Your task to perform on an android device: toggle show notifications on the lock screen Image 0: 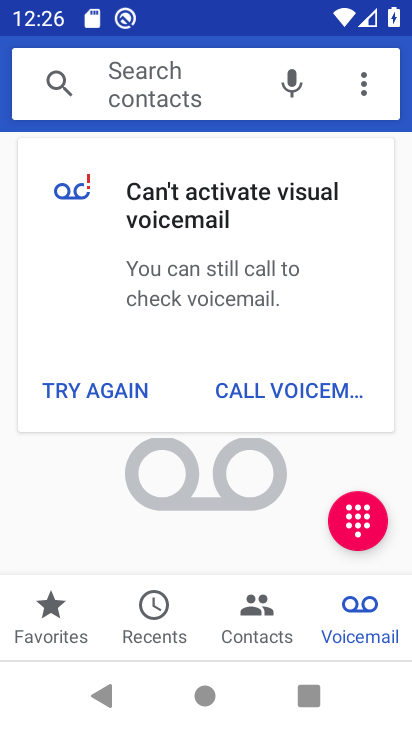
Step 0: drag from (246, 644) to (319, 290)
Your task to perform on an android device: toggle show notifications on the lock screen Image 1: 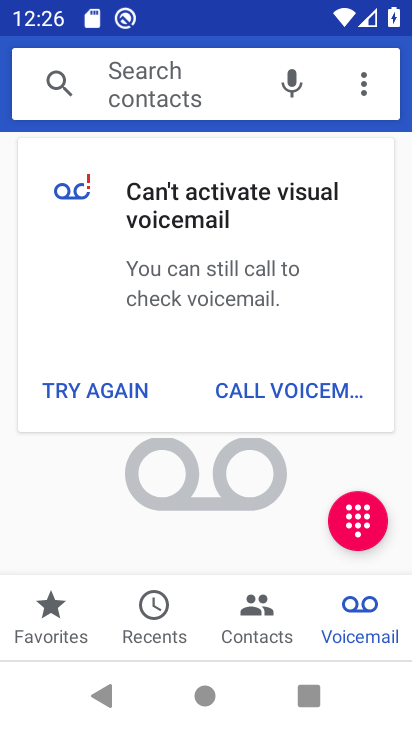
Step 1: press home button
Your task to perform on an android device: toggle show notifications on the lock screen Image 2: 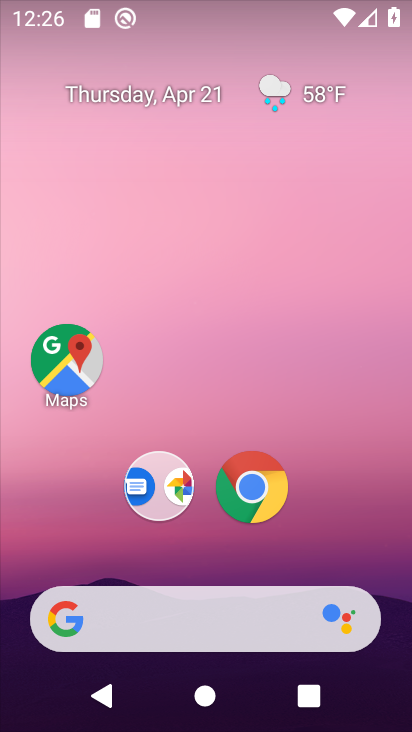
Step 2: drag from (247, 652) to (317, 126)
Your task to perform on an android device: toggle show notifications on the lock screen Image 3: 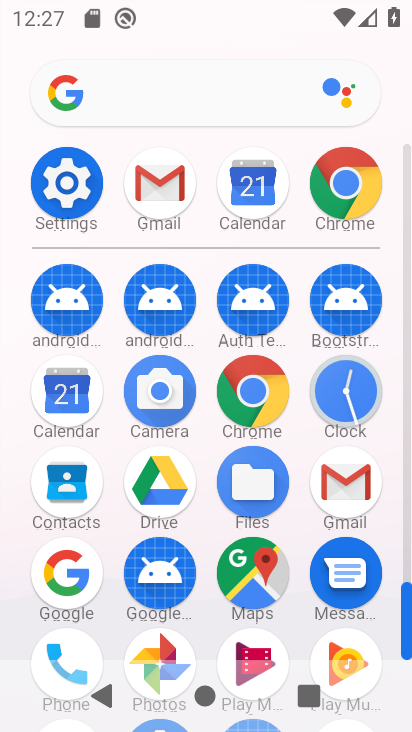
Step 3: click (65, 211)
Your task to perform on an android device: toggle show notifications on the lock screen Image 4: 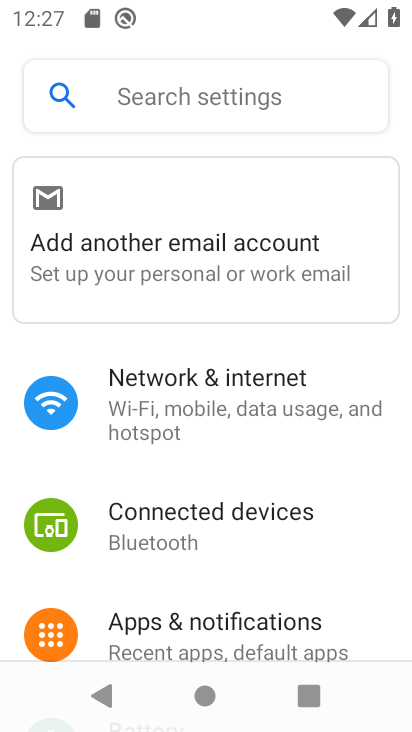
Step 4: click (208, 102)
Your task to perform on an android device: toggle show notifications on the lock screen Image 5: 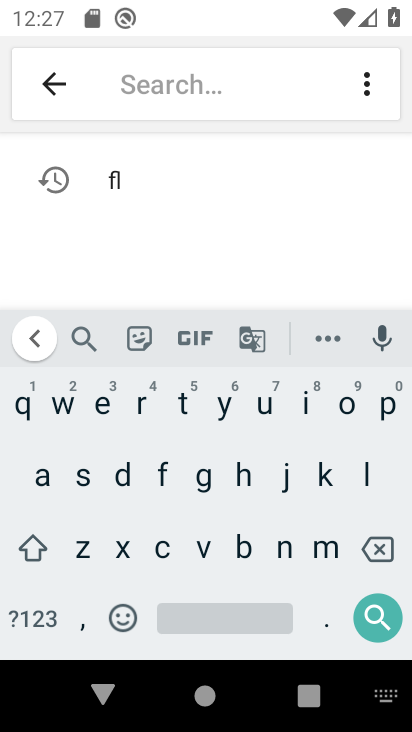
Step 5: click (280, 546)
Your task to perform on an android device: toggle show notifications on the lock screen Image 6: 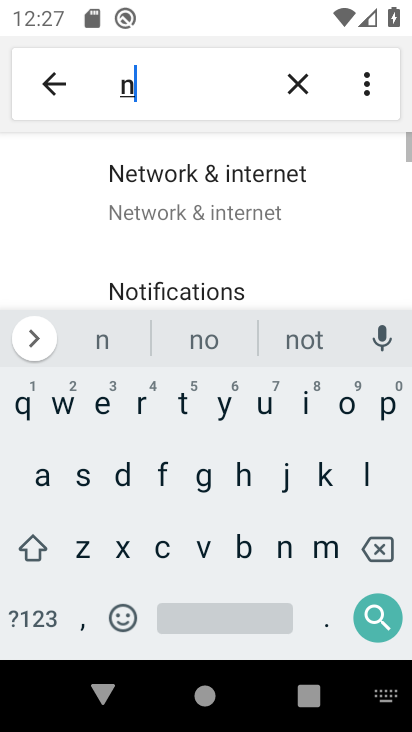
Step 6: click (343, 410)
Your task to perform on an android device: toggle show notifications on the lock screen Image 7: 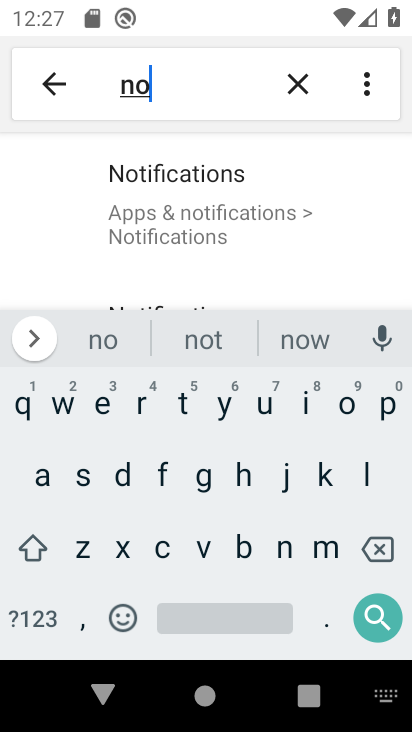
Step 7: click (185, 410)
Your task to perform on an android device: toggle show notifications on the lock screen Image 8: 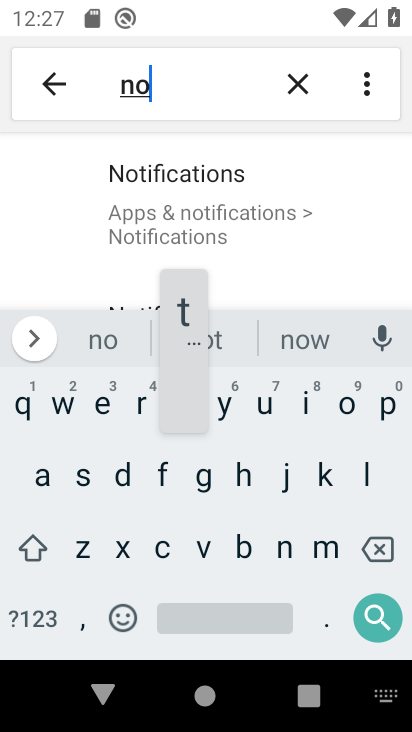
Step 8: click (185, 410)
Your task to perform on an android device: toggle show notifications on the lock screen Image 9: 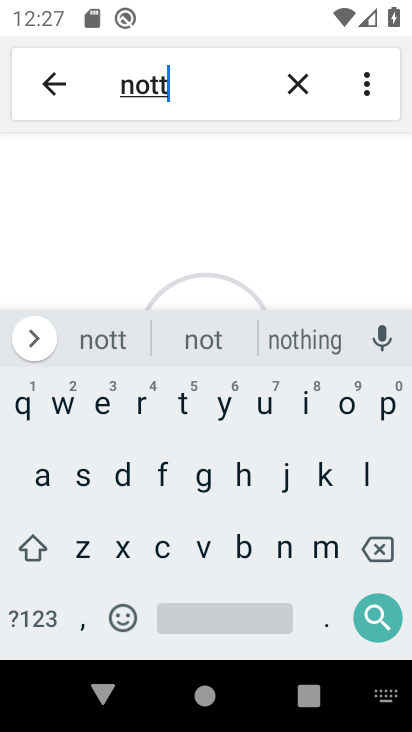
Step 9: click (377, 545)
Your task to perform on an android device: toggle show notifications on the lock screen Image 10: 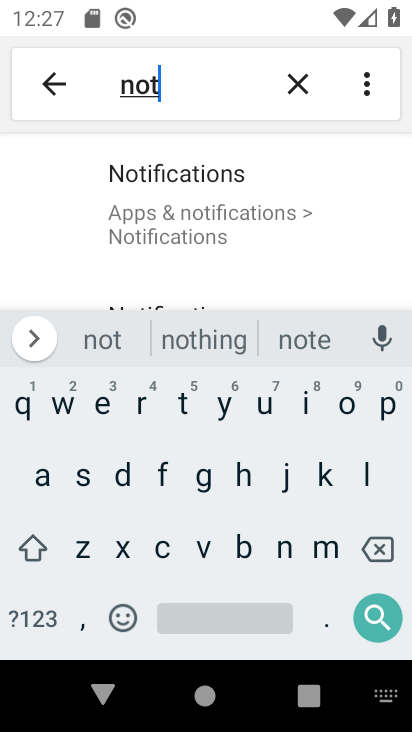
Step 10: click (208, 200)
Your task to perform on an android device: toggle show notifications on the lock screen Image 11: 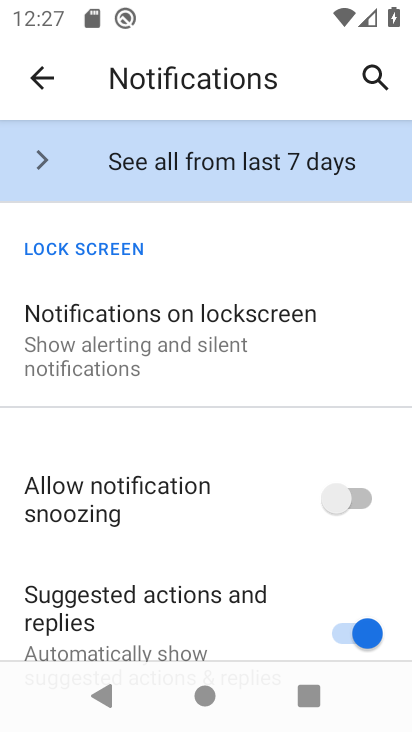
Step 11: click (150, 325)
Your task to perform on an android device: toggle show notifications on the lock screen Image 12: 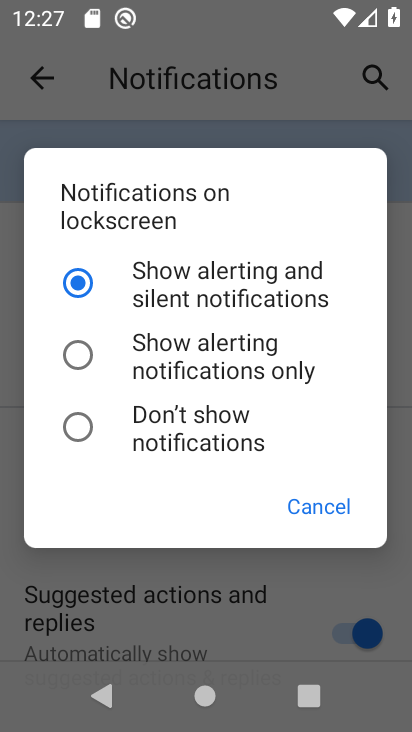
Step 12: task complete